Your task to perform on an android device: search for starred emails in the gmail app Image 0: 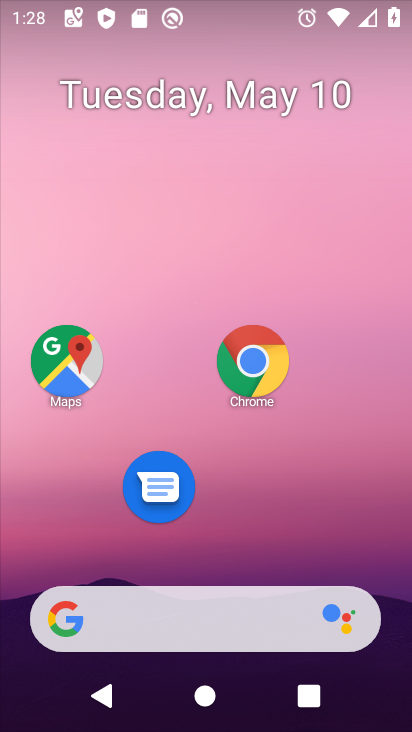
Step 0: drag from (303, 493) to (257, 213)
Your task to perform on an android device: search for starred emails in the gmail app Image 1: 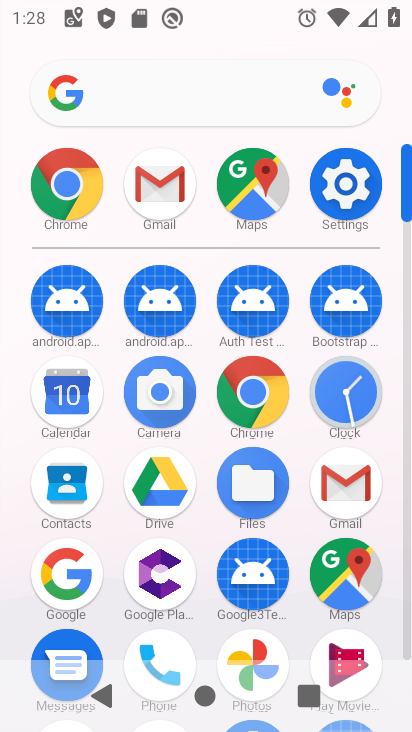
Step 1: click (186, 174)
Your task to perform on an android device: search for starred emails in the gmail app Image 2: 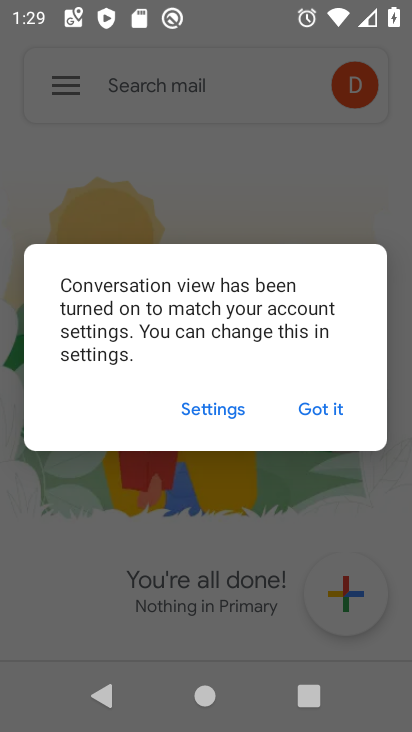
Step 2: click (293, 401)
Your task to perform on an android device: search for starred emails in the gmail app Image 3: 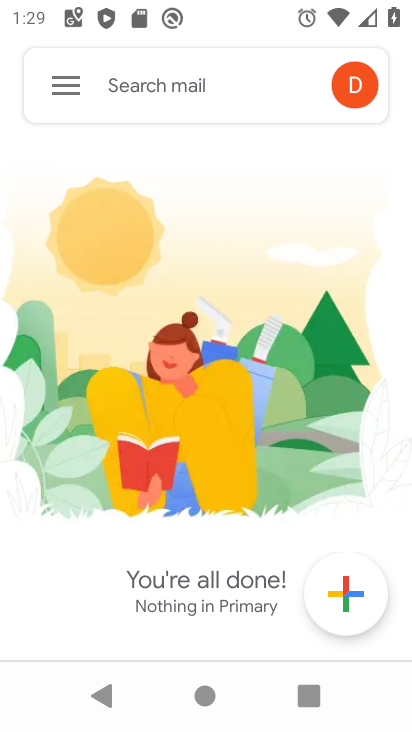
Step 3: click (293, 401)
Your task to perform on an android device: search for starred emails in the gmail app Image 4: 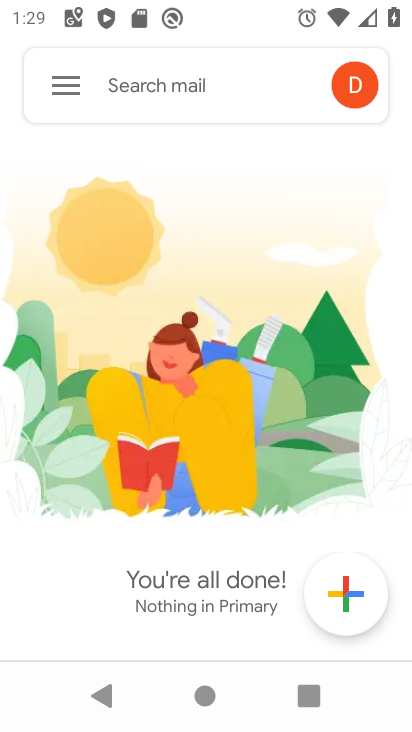
Step 4: click (74, 96)
Your task to perform on an android device: search for starred emails in the gmail app Image 5: 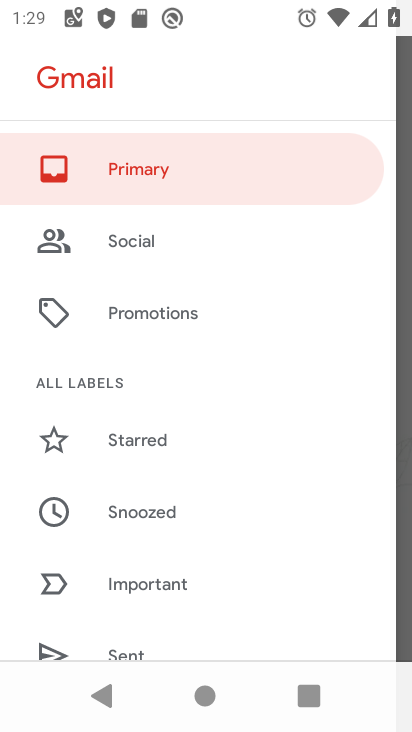
Step 5: click (120, 426)
Your task to perform on an android device: search for starred emails in the gmail app Image 6: 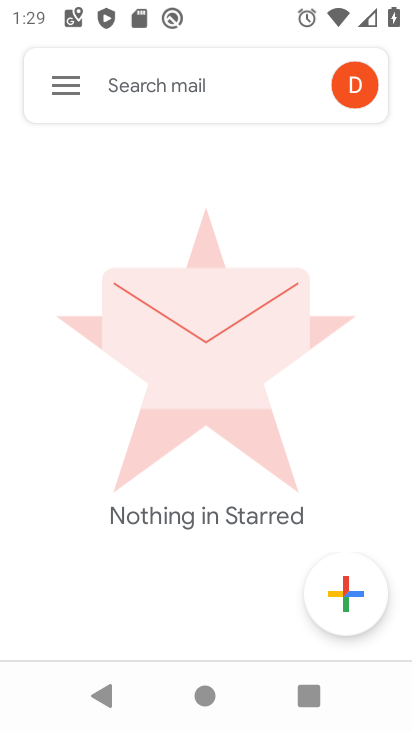
Step 6: task complete